Your task to perform on an android device: turn off data saver in the chrome app Image 0: 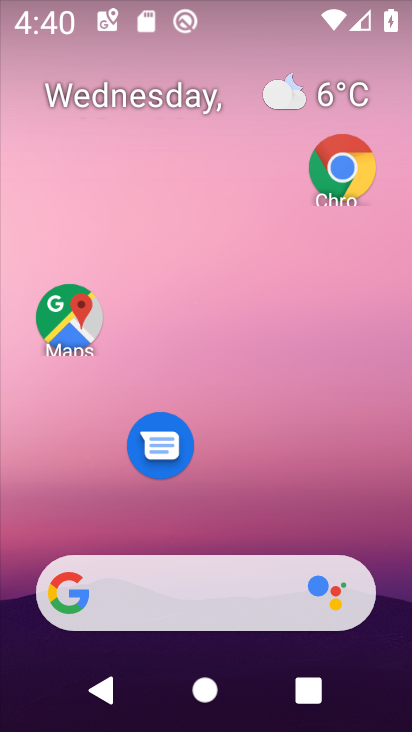
Step 0: click (339, 164)
Your task to perform on an android device: turn off data saver in the chrome app Image 1: 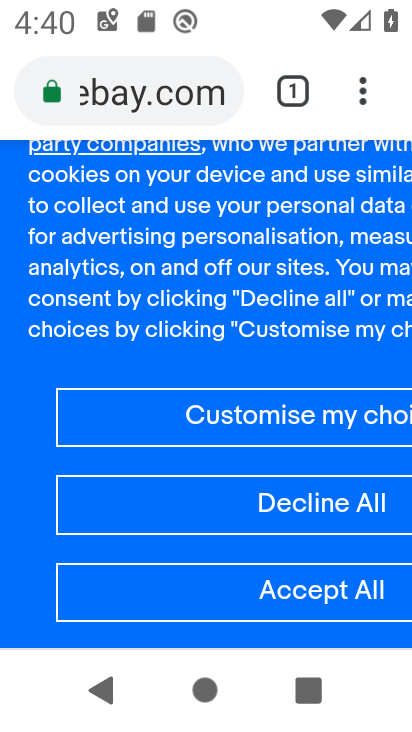
Step 1: click (355, 104)
Your task to perform on an android device: turn off data saver in the chrome app Image 2: 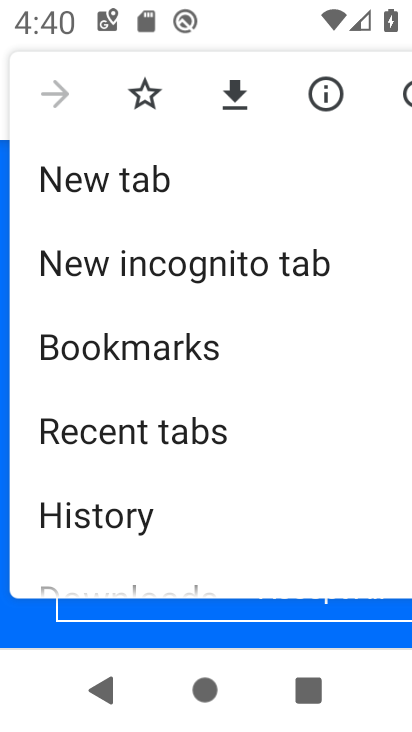
Step 2: drag from (196, 457) to (232, 10)
Your task to perform on an android device: turn off data saver in the chrome app Image 3: 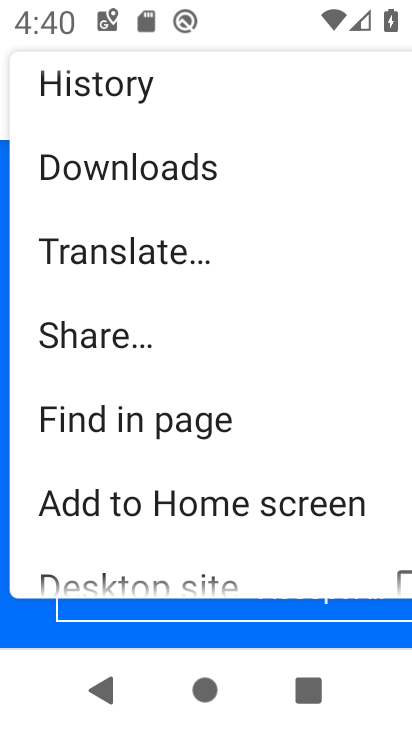
Step 3: drag from (172, 511) to (198, 177)
Your task to perform on an android device: turn off data saver in the chrome app Image 4: 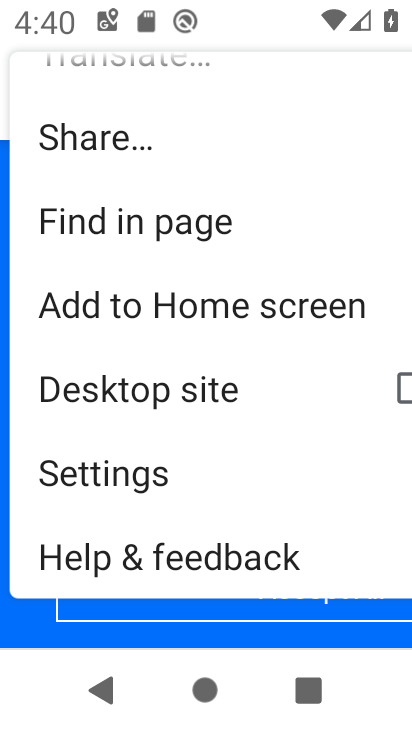
Step 4: click (146, 480)
Your task to perform on an android device: turn off data saver in the chrome app Image 5: 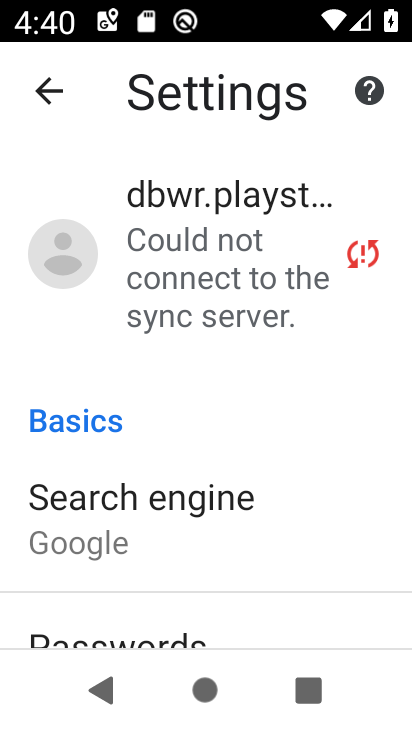
Step 5: drag from (169, 410) to (208, 124)
Your task to perform on an android device: turn off data saver in the chrome app Image 6: 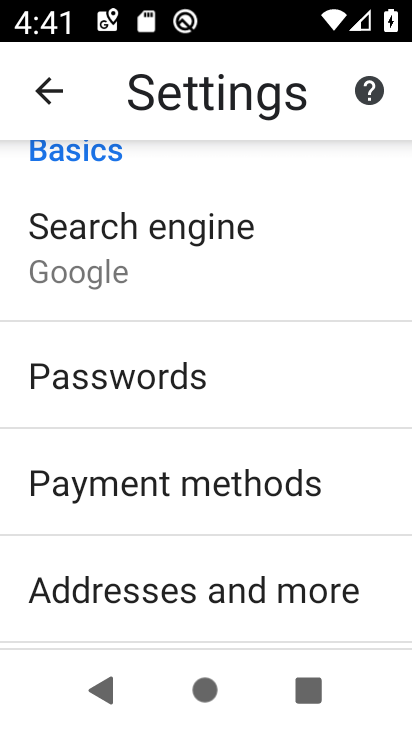
Step 6: drag from (188, 517) to (268, 61)
Your task to perform on an android device: turn off data saver in the chrome app Image 7: 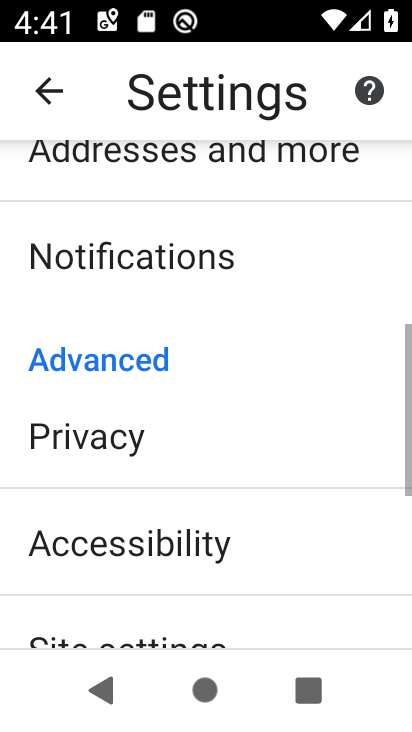
Step 7: drag from (217, 550) to (283, 190)
Your task to perform on an android device: turn off data saver in the chrome app Image 8: 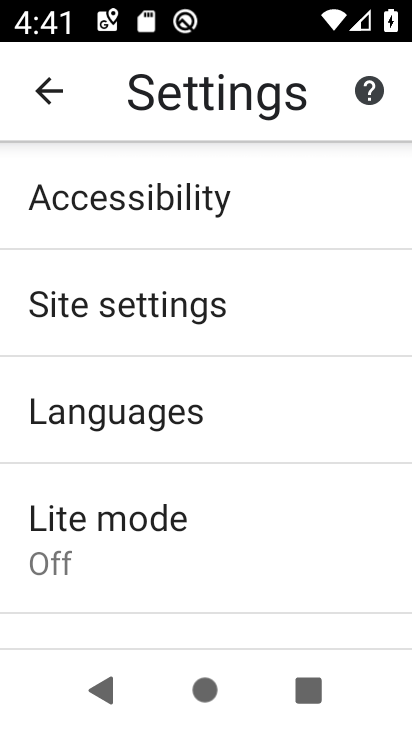
Step 8: drag from (191, 586) to (215, 187)
Your task to perform on an android device: turn off data saver in the chrome app Image 9: 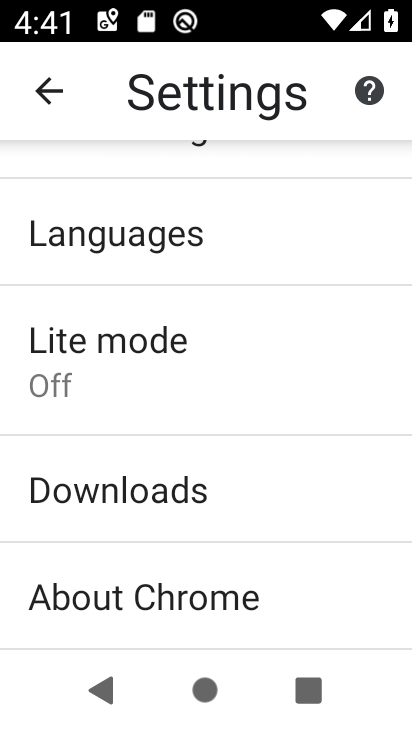
Step 9: click (145, 521)
Your task to perform on an android device: turn off data saver in the chrome app Image 10: 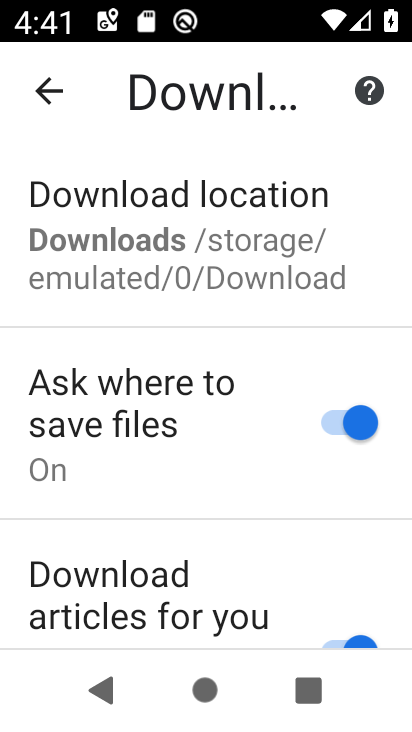
Step 10: click (70, 96)
Your task to perform on an android device: turn off data saver in the chrome app Image 11: 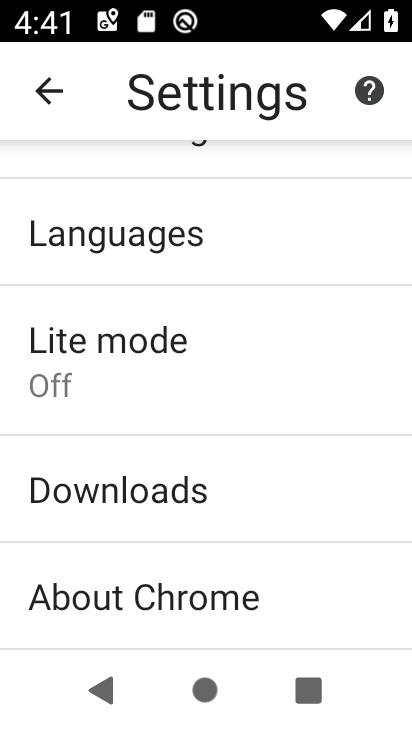
Step 11: click (135, 380)
Your task to perform on an android device: turn off data saver in the chrome app Image 12: 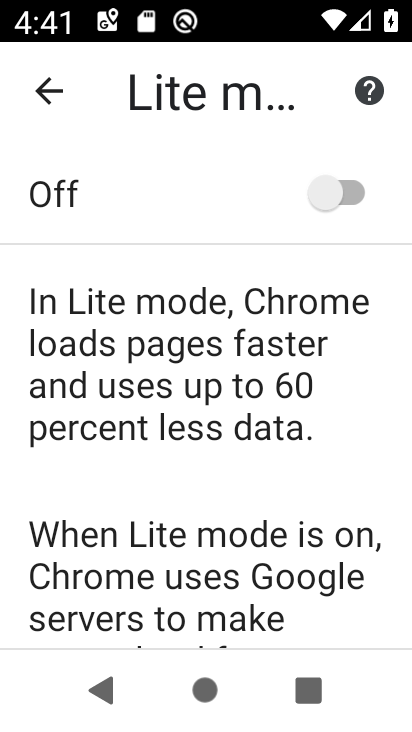
Step 12: task complete